Your task to perform on an android device: check google app version Image 0: 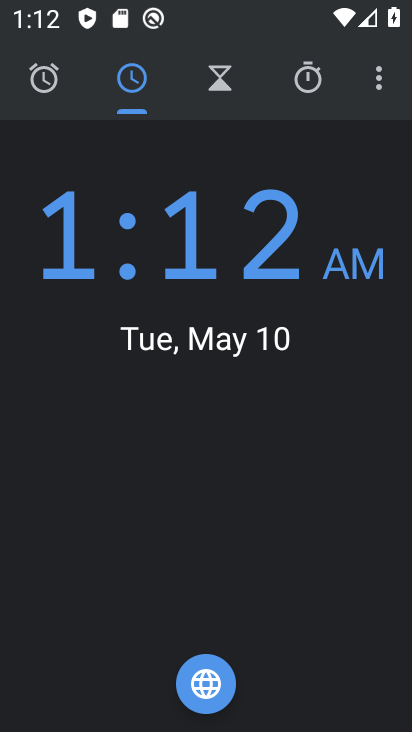
Step 0: press back button
Your task to perform on an android device: check google app version Image 1: 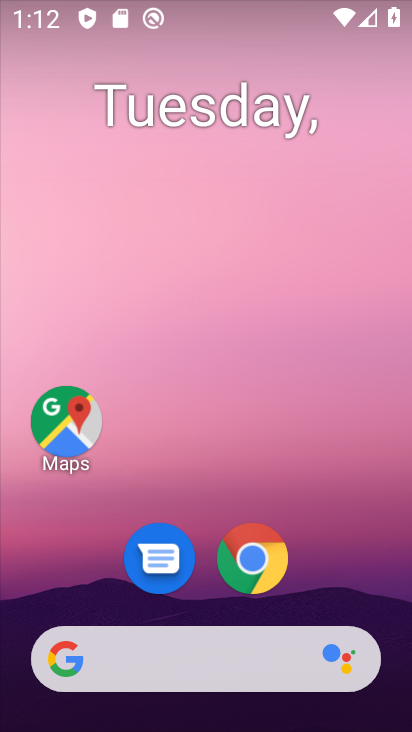
Step 1: drag from (215, 550) to (333, 7)
Your task to perform on an android device: check google app version Image 2: 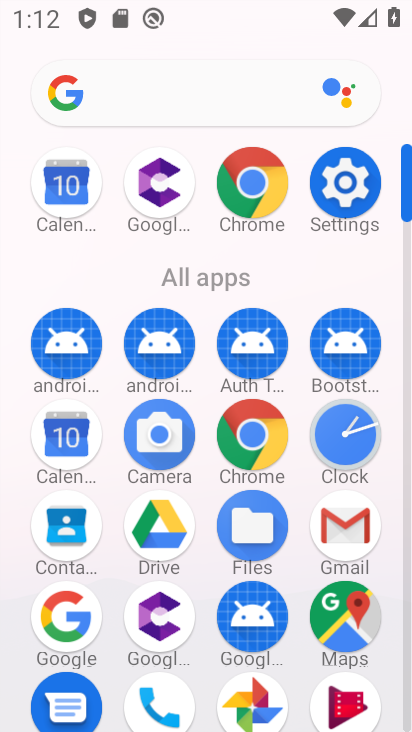
Step 2: click (81, 620)
Your task to perform on an android device: check google app version Image 3: 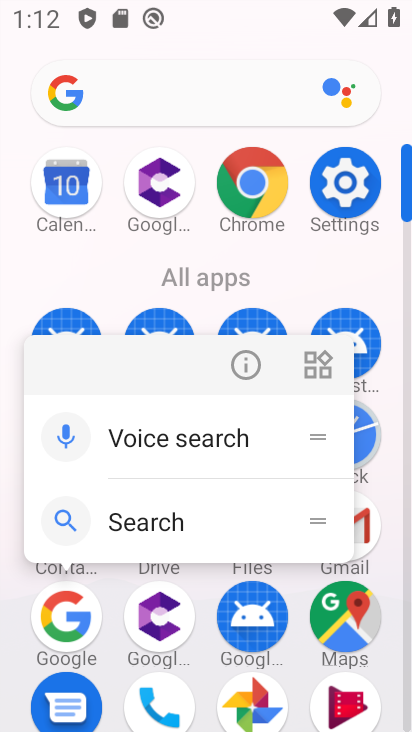
Step 3: click (250, 357)
Your task to perform on an android device: check google app version Image 4: 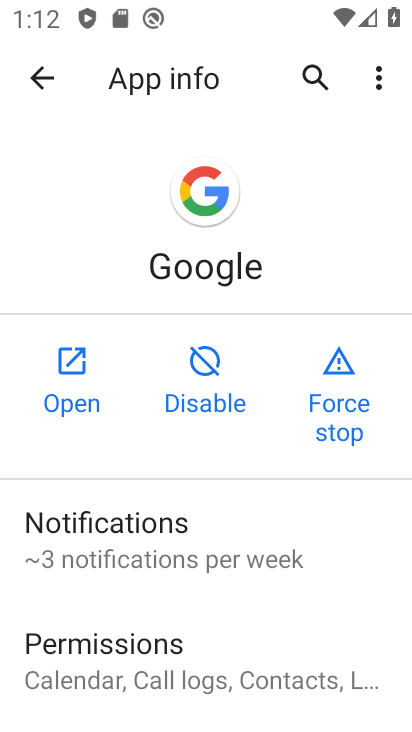
Step 4: drag from (161, 658) to (332, 64)
Your task to perform on an android device: check google app version Image 5: 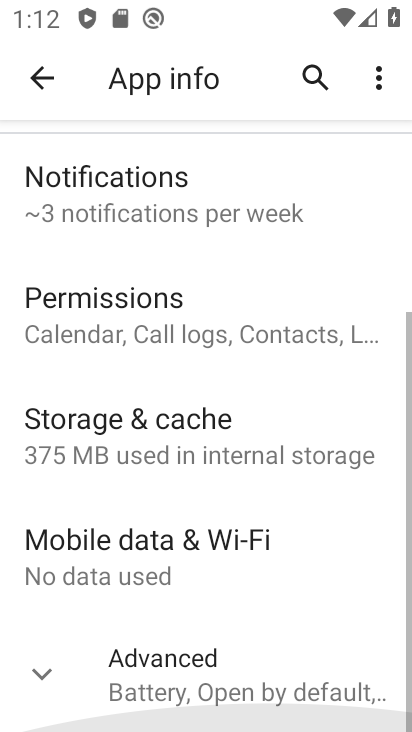
Step 5: drag from (234, 628) to (319, 137)
Your task to perform on an android device: check google app version Image 6: 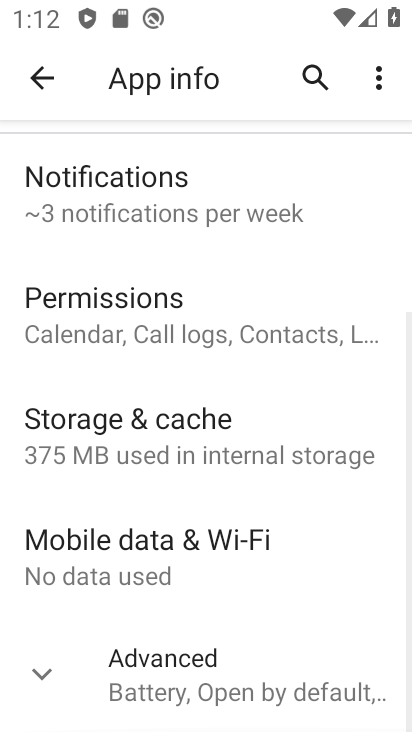
Step 6: drag from (209, 655) to (277, 144)
Your task to perform on an android device: check google app version Image 7: 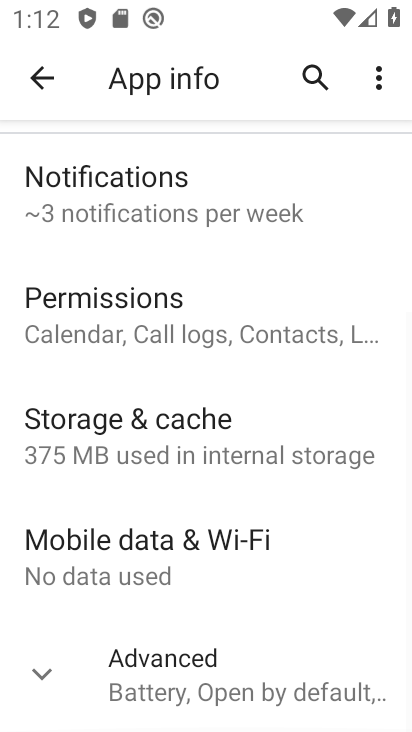
Step 7: click (171, 694)
Your task to perform on an android device: check google app version Image 8: 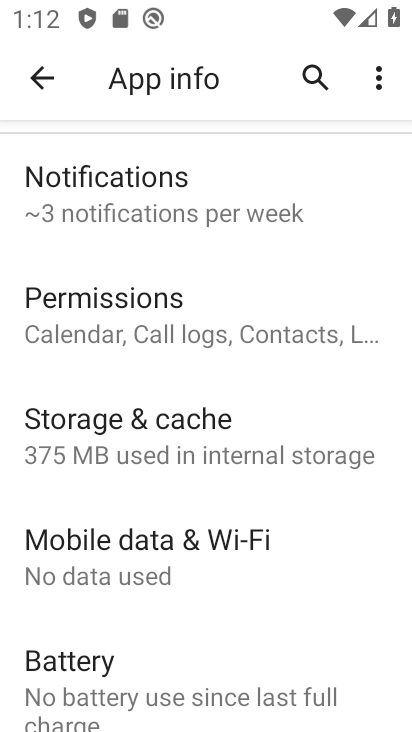
Step 8: click (295, 157)
Your task to perform on an android device: check google app version Image 9: 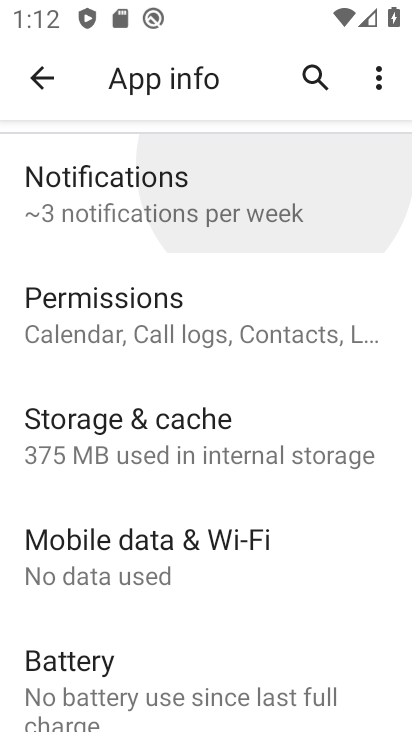
Step 9: drag from (208, 673) to (250, 142)
Your task to perform on an android device: check google app version Image 10: 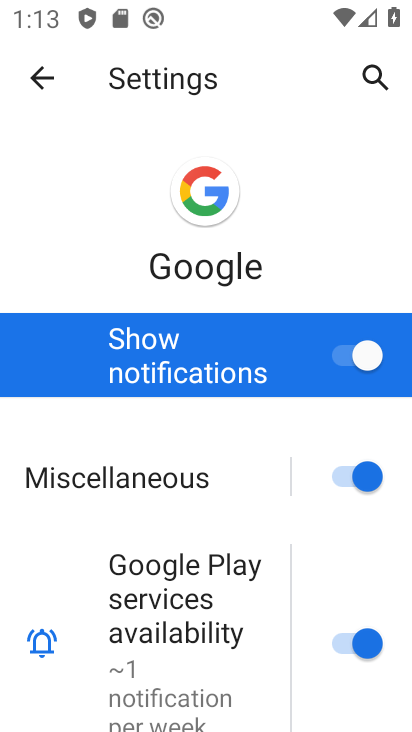
Step 10: drag from (202, 688) to (294, 101)
Your task to perform on an android device: check google app version Image 11: 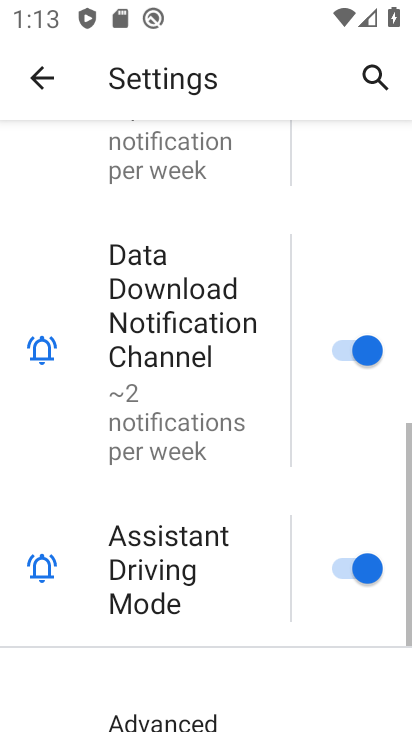
Step 11: drag from (144, 630) to (257, 70)
Your task to perform on an android device: check google app version Image 12: 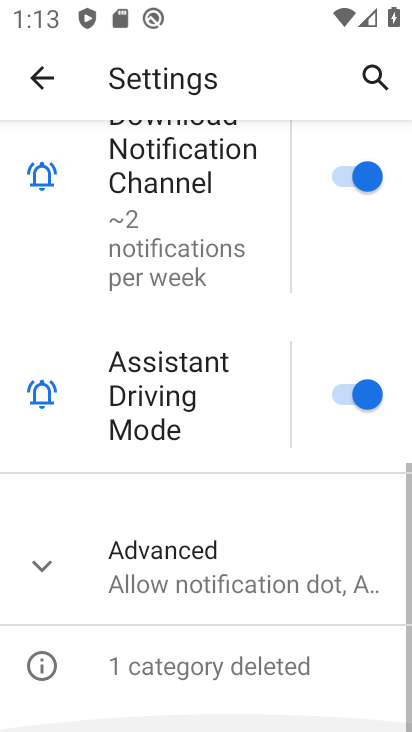
Step 12: drag from (141, 654) to (253, 171)
Your task to perform on an android device: check google app version Image 13: 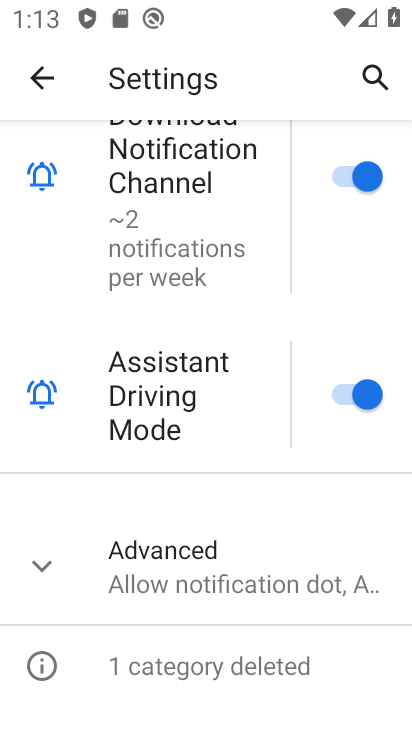
Step 13: click (60, 72)
Your task to perform on an android device: check google app version Image 14: 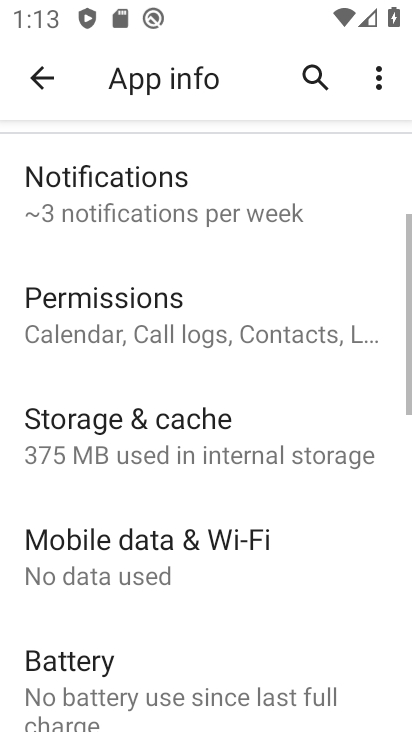
Step 14: task complete